Your task to perform on an android device: View the shopping cart on target.com. Add usb-a to usb-b to the cart on target.com Image 0: 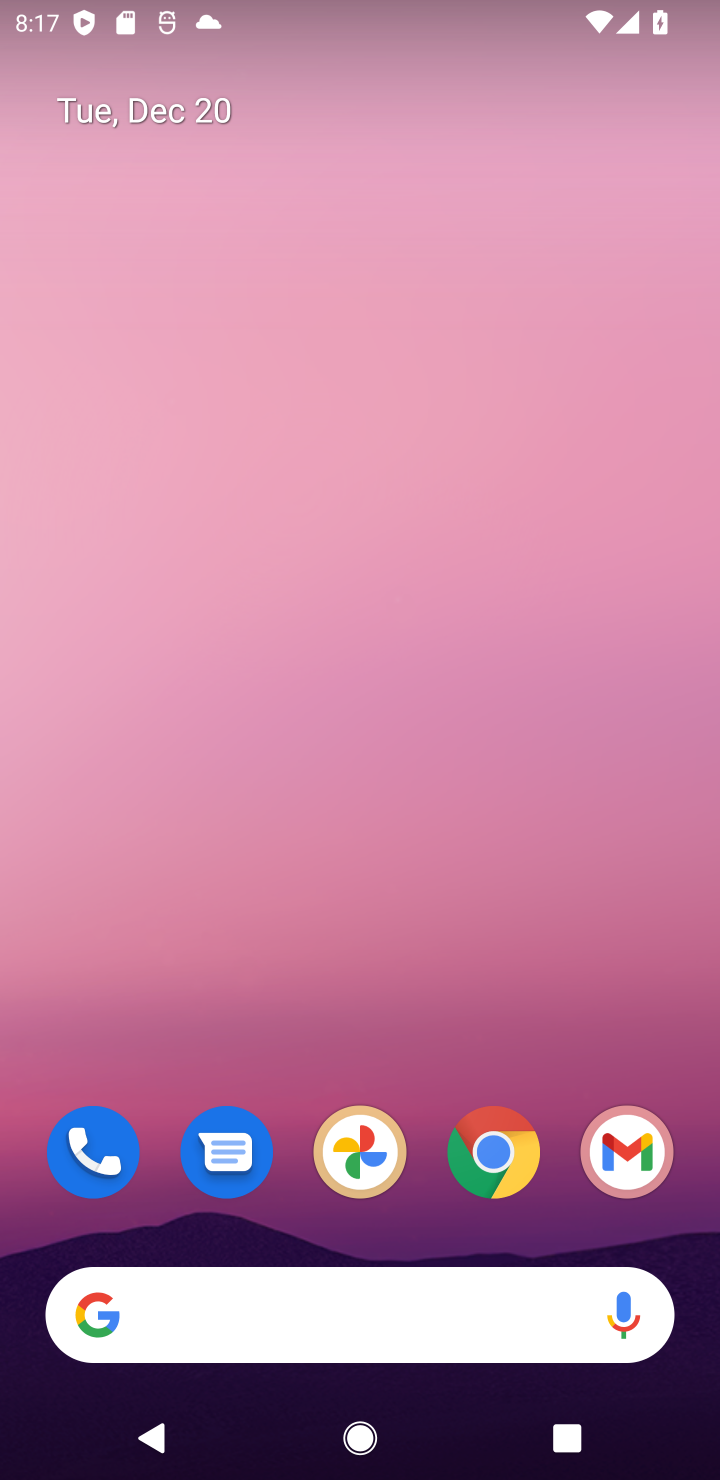
Step 0: click (490, 1149)
Your task to perform on an android device: View the shopping cart on target.com. Add usb-a to usb-b to the cart on target.com Image 1: 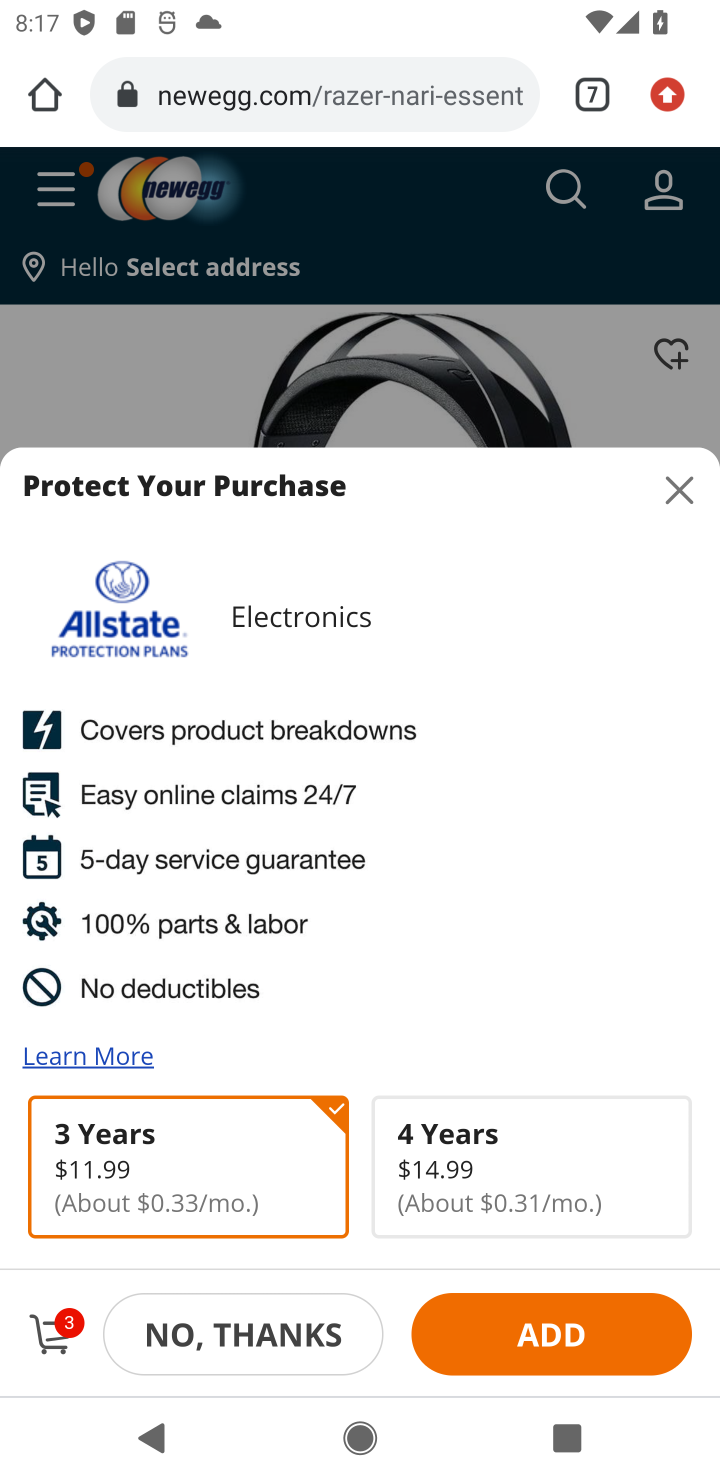
Step 1: click (669, 490)
Your task to perform on an android device: View the shopping cart on target.com. Add usb-a to usb-b to the cart on target.com Image 2: 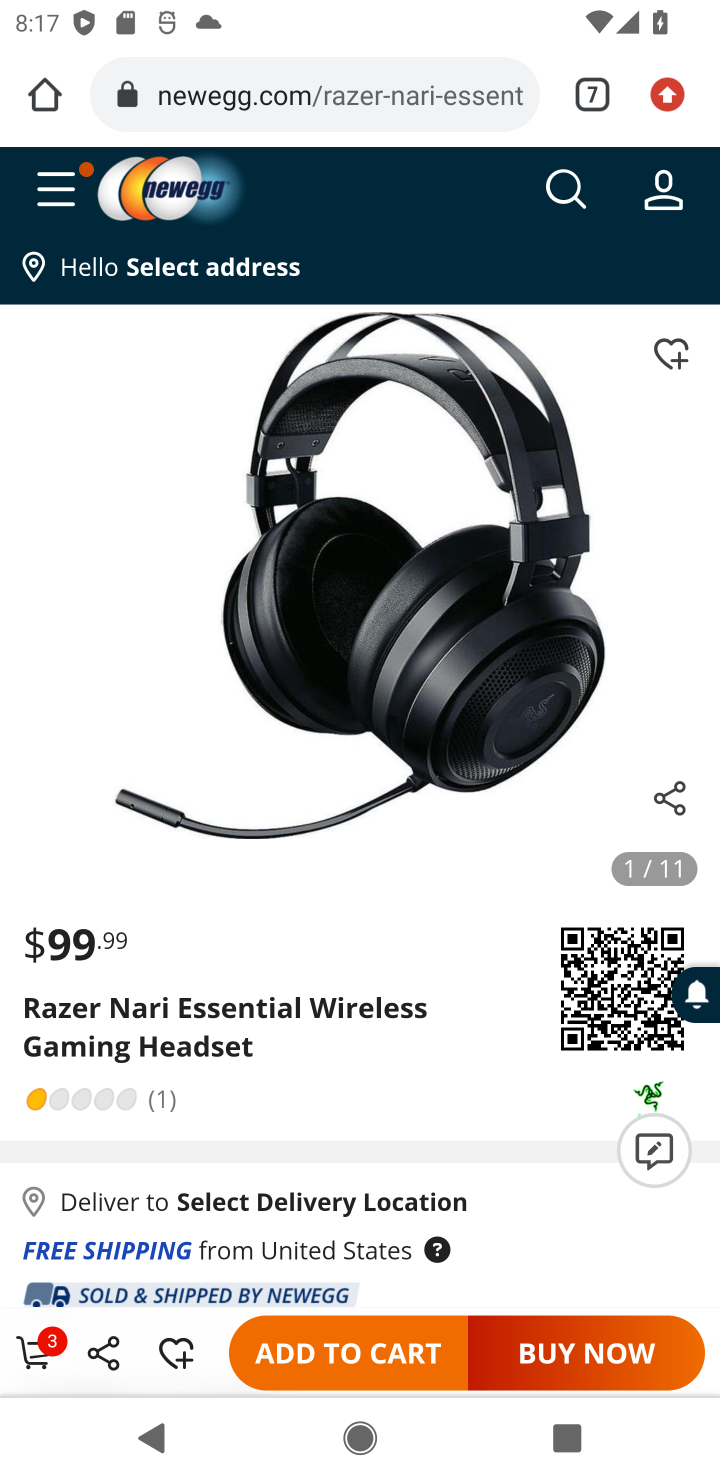
Step 2: click (41, 1350)
Your task to perform on an android device: View the shopping cart on target.com. Add usb-a to usb-b to the cart on target.com Image 3: 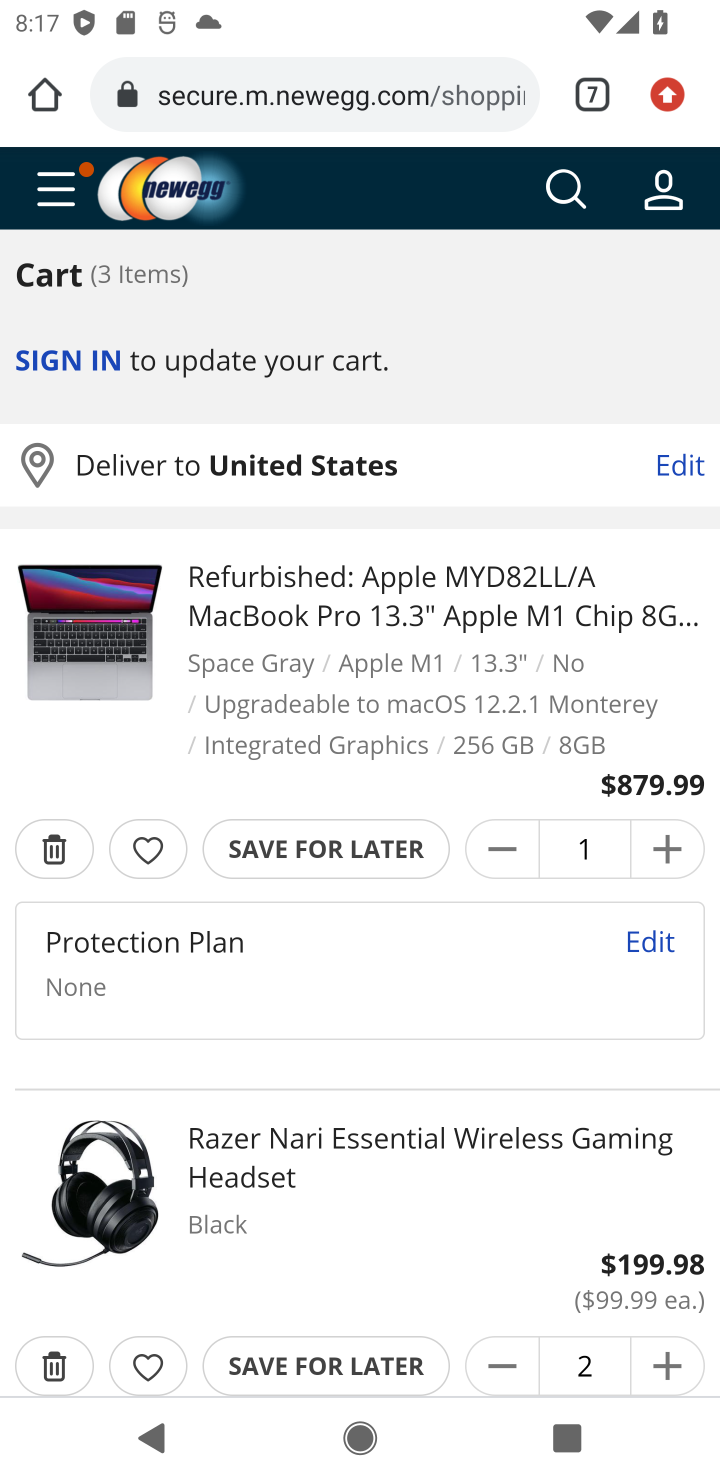
Step 3: click (556, 188)
Your task to perform on an android device: View the shopping cart on target.com. Add usb-a to usb-b to the cart on target.com Image 4: 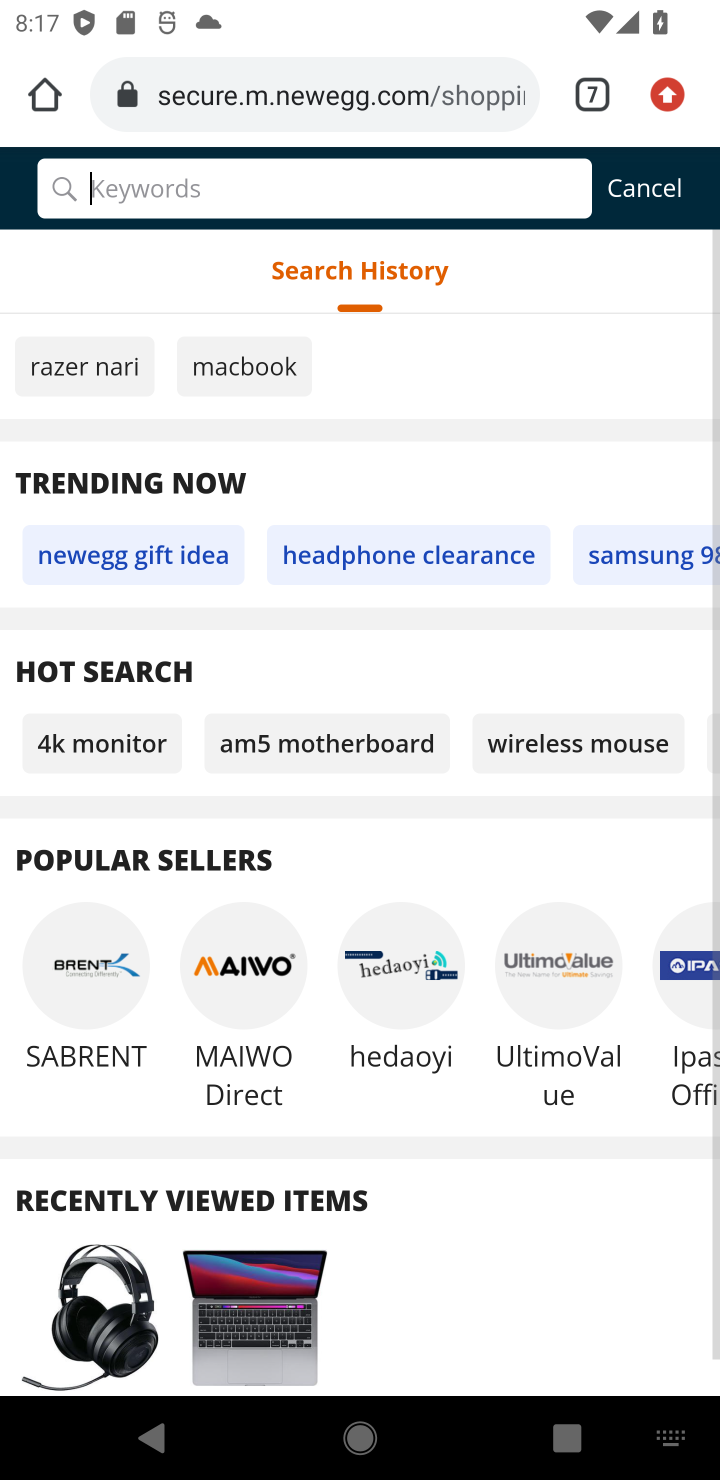
Step 4: type "usb-a to usb-b"
Your task to perform on an android device: View the shopping cart on target.com. Add usb-a to usb-b to the cart on target.com Image 5: 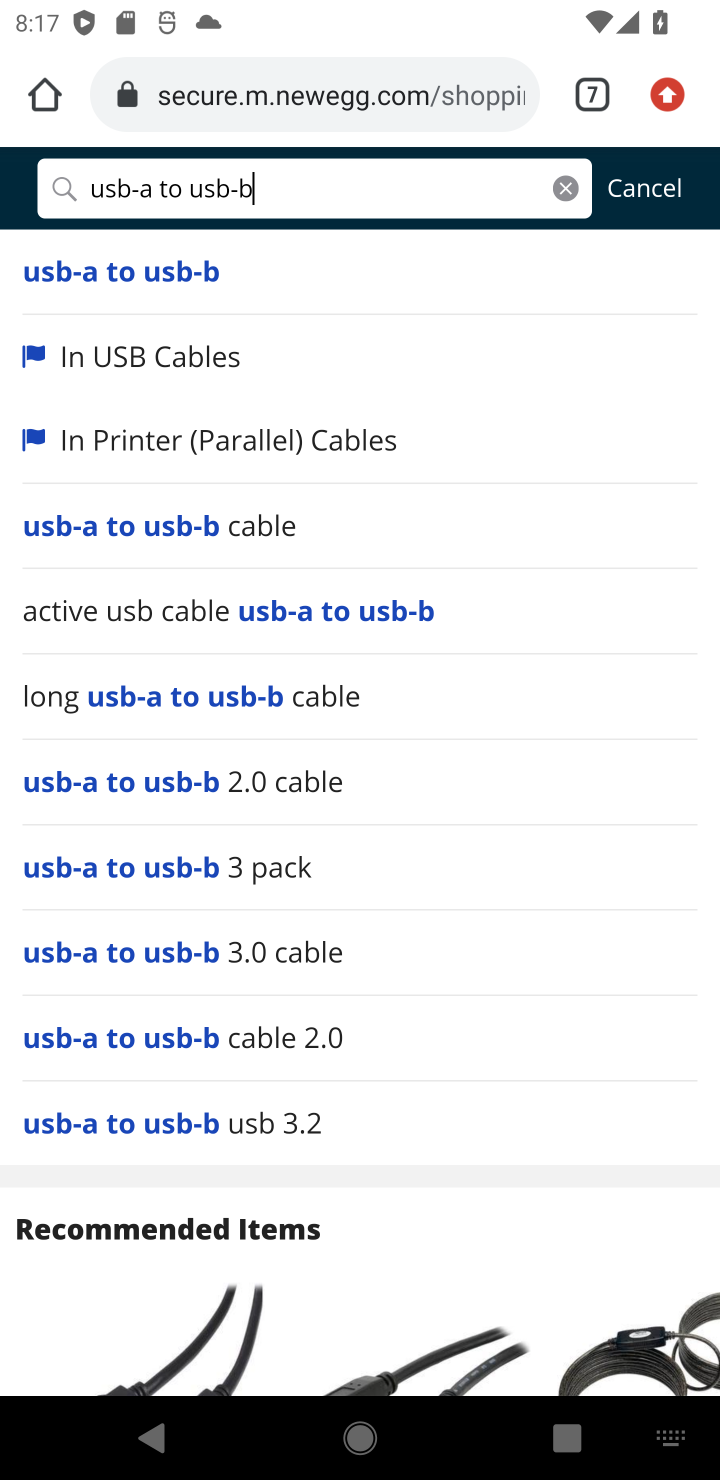
Step 5: press enter
Your task to perform on an android device: View the shopping cart on target.com. Add usb-a to usb-b to the cart on target.com Image 6: 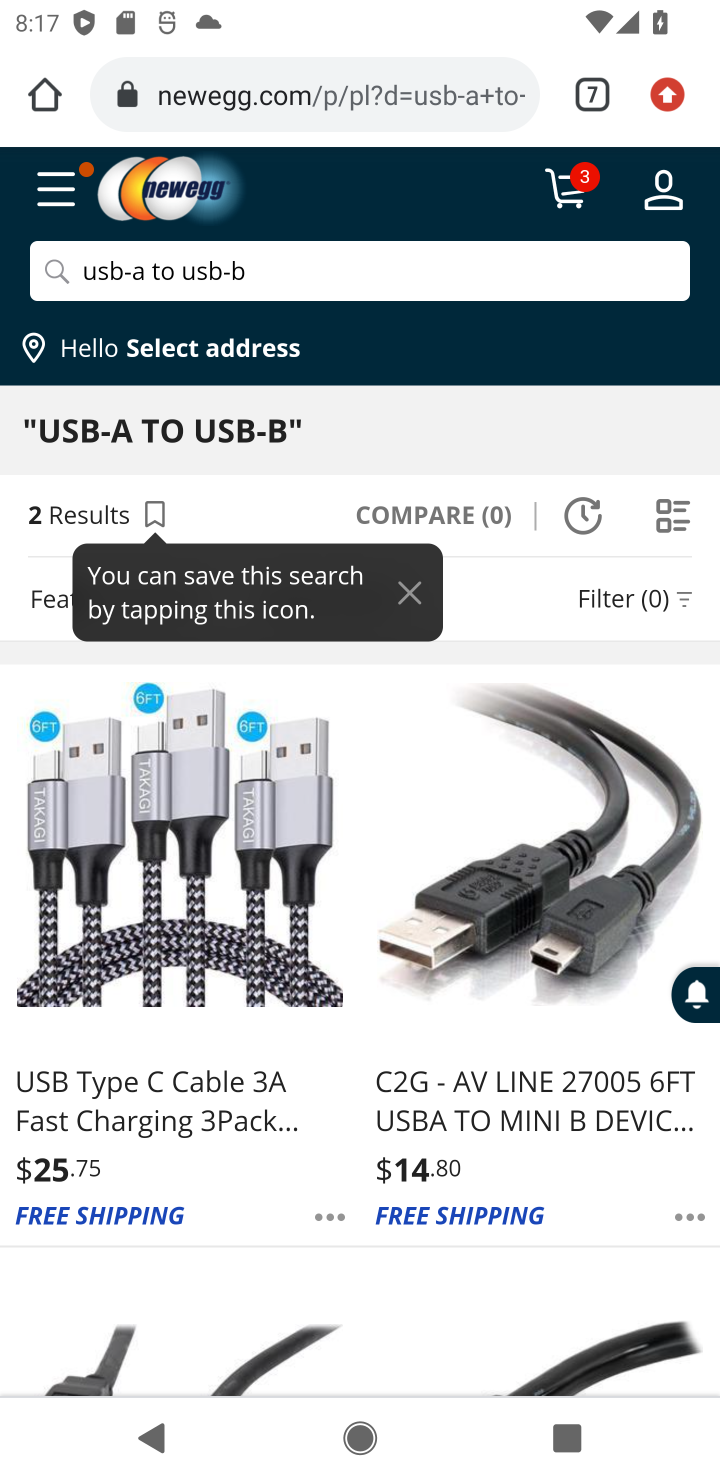
Step 6: click (171, 1101)
Your task to perform on an android device: View the shopping cart on target.com. Add usb-a to usb-b to the cart on target.com Image 7: 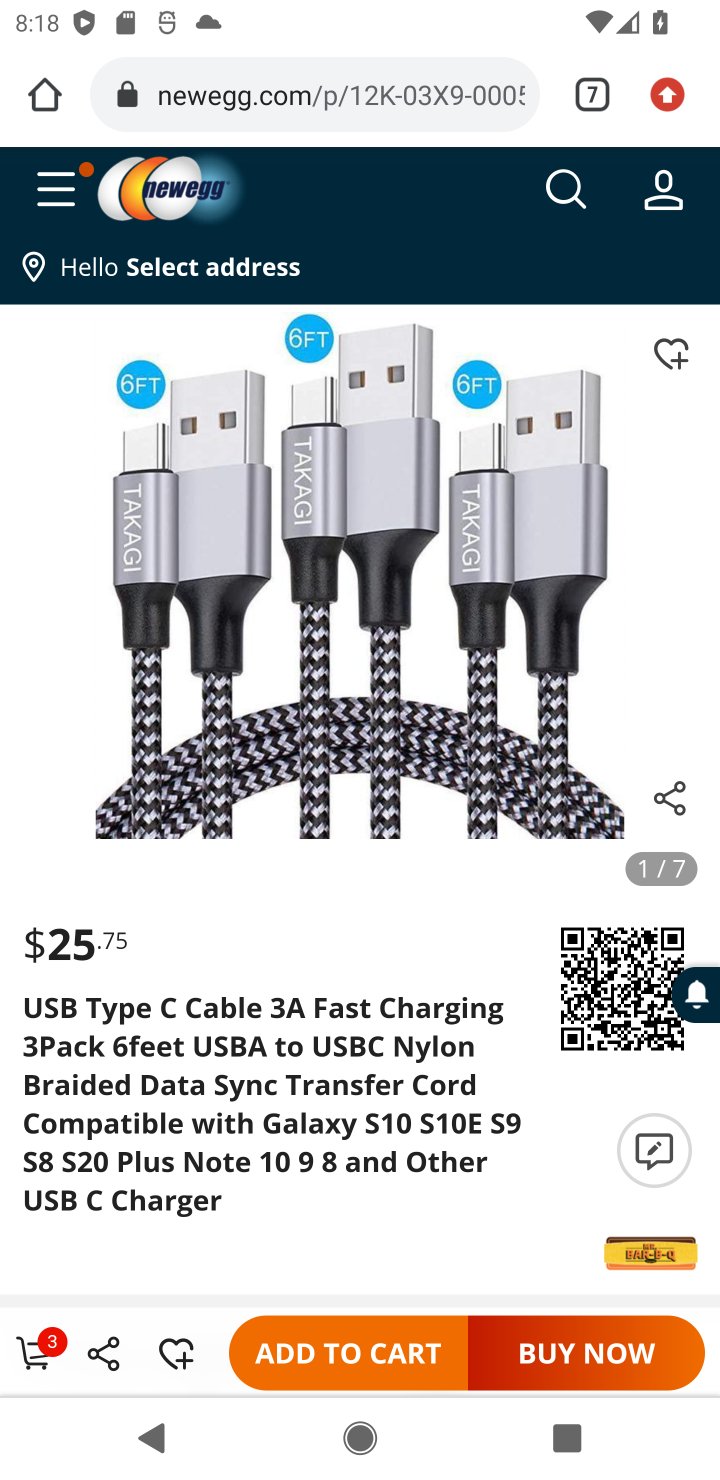
Step 7: drag from (398, 1227) to (467, 764)
Your task to perform on an android device: View the shopping cart on target.com. Add usb-a to usb-b to the cart on target.com Image 8: 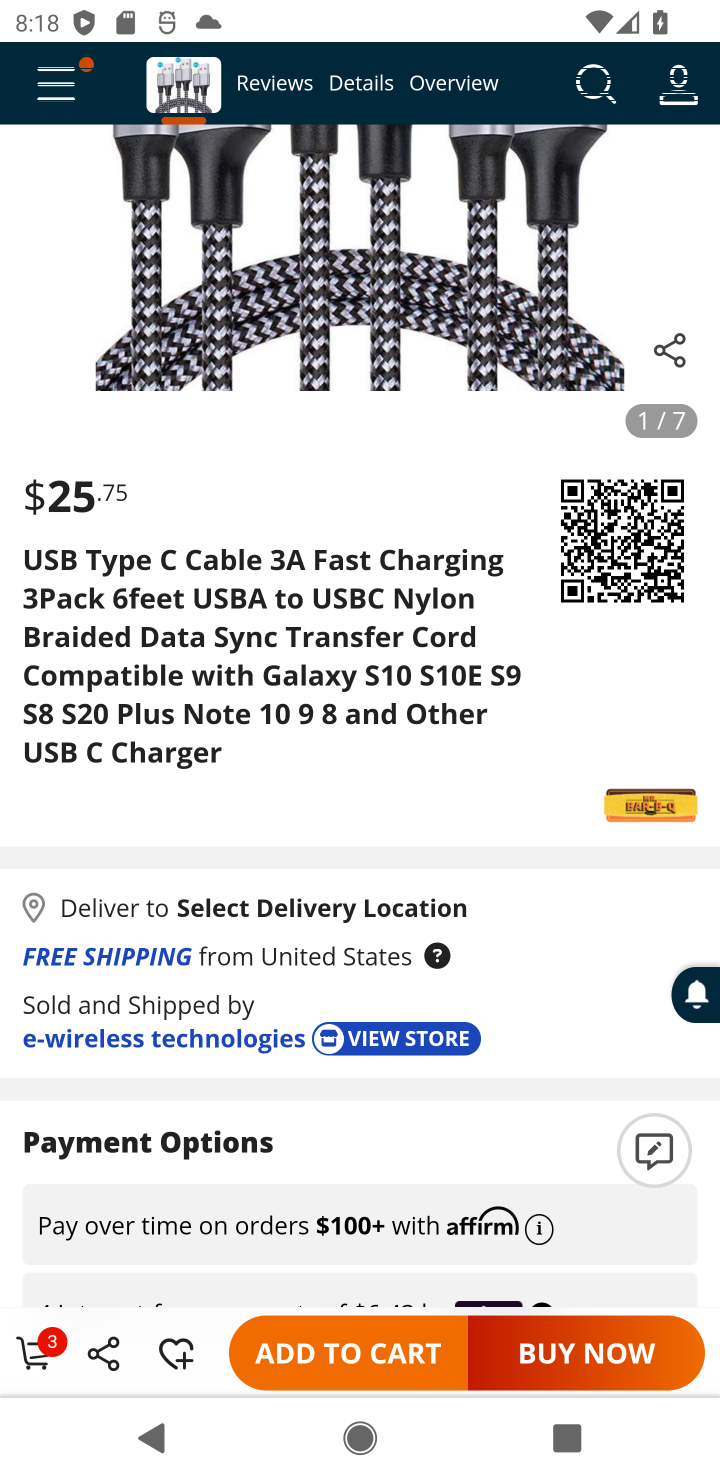
Step 8: click (343, 1340)
Your task to perform on an android device: View the shopping cart on target.com. Add usb-a to usb-b to the cart on target.com Image 9: 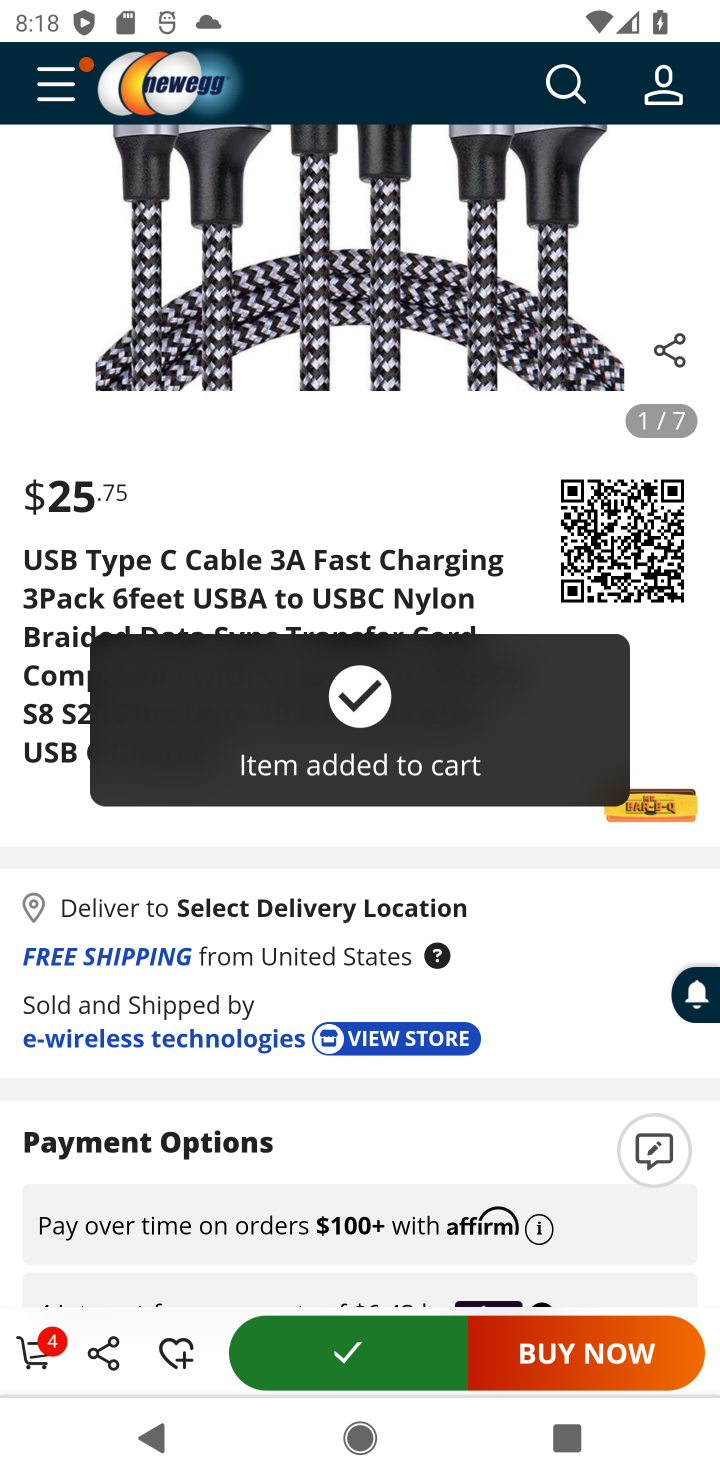
Step 9: task complete